Your task to perform on an android device: toggle translation in the chrome app Image 0: 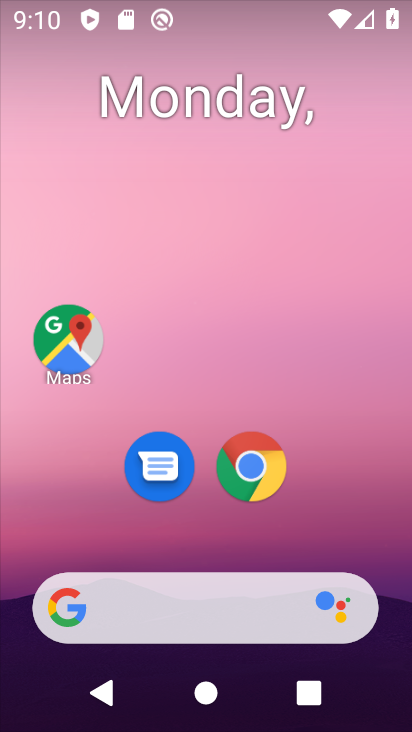
Step 0: drag from (260, 666) to (116, 113)
Your task to perform on an android device: toggle translation in the chrome app Image 1: 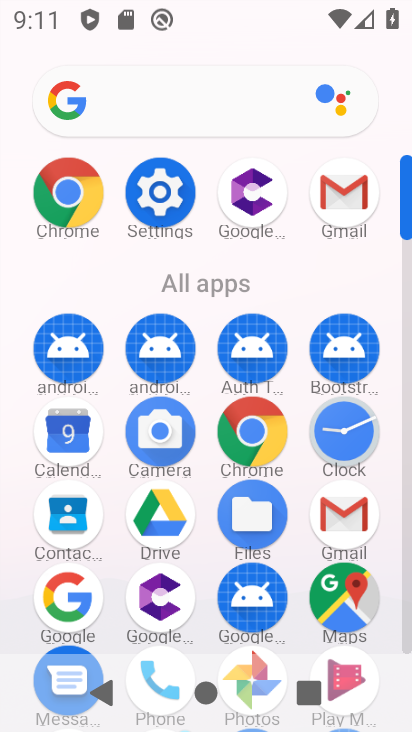
Step 1: click (241, 445)
Your task to perform on an android device: toggle translation in the chrome app Image 2: 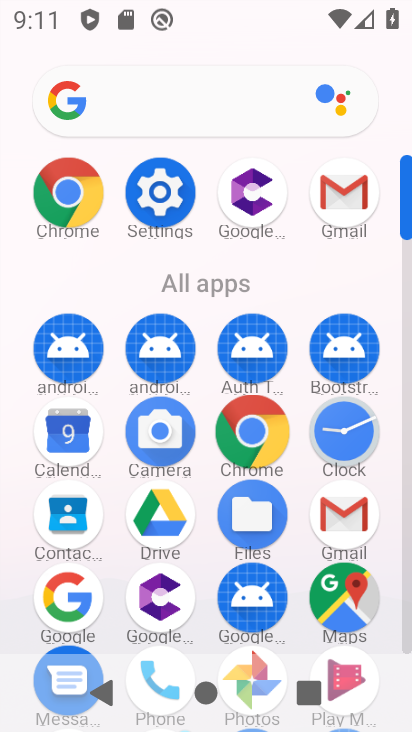
Step 2: click (241, 445)
Your task to perform on an android device: toggle translation in the chrome app Image 3: 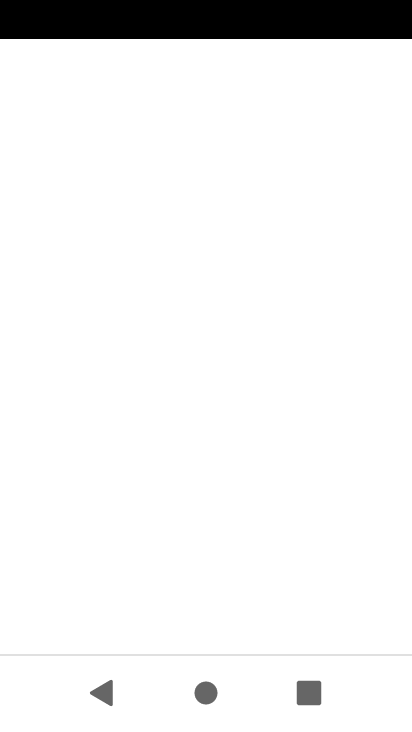
Step 3: click (241, 445)
Your task to perform on an android device: toggle translation in the chrome app Image 4: 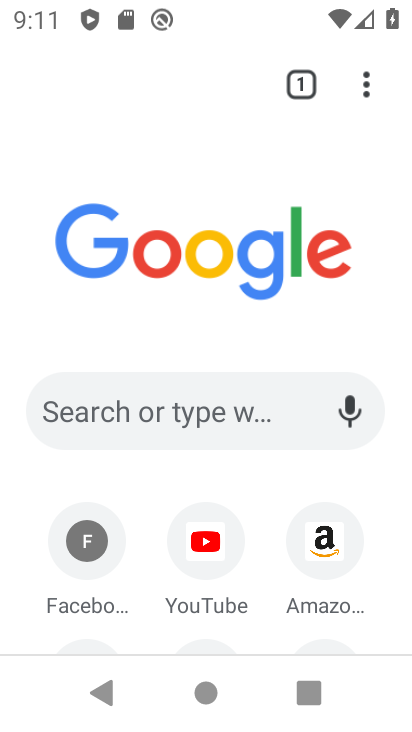
Step 4: drag from (359, 84) to (218, 430)
Your task to perform on an android device: toggle translation in the chrome app Image 5: 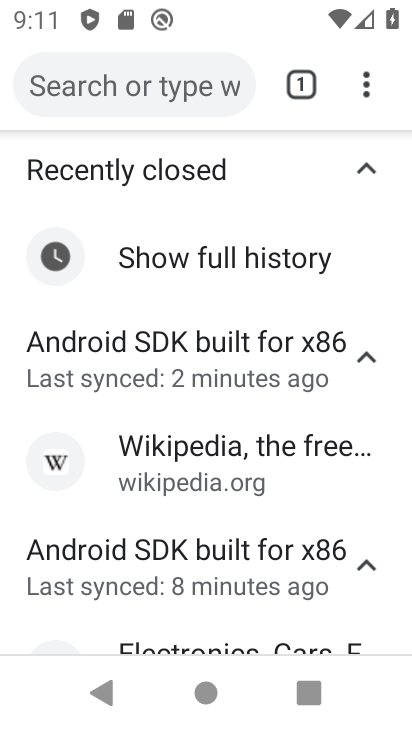
Step 5: press back button
Your task to perform on an android device: toggle translation in the chrome app Image 6: 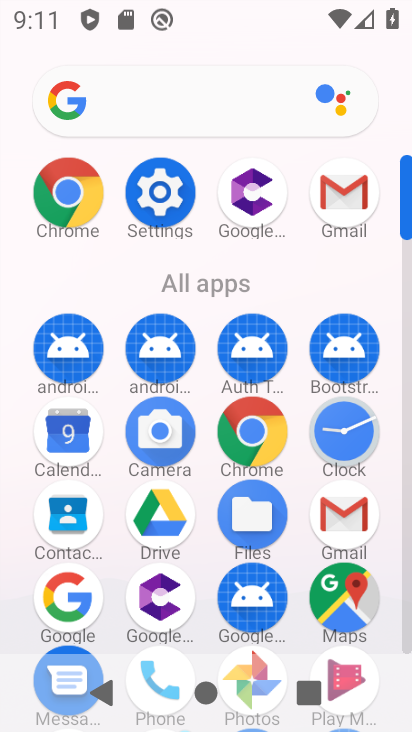
Step 6: click (82, 202)
Your task to perform on an android device: toggle translation in the chrome app Image 7: 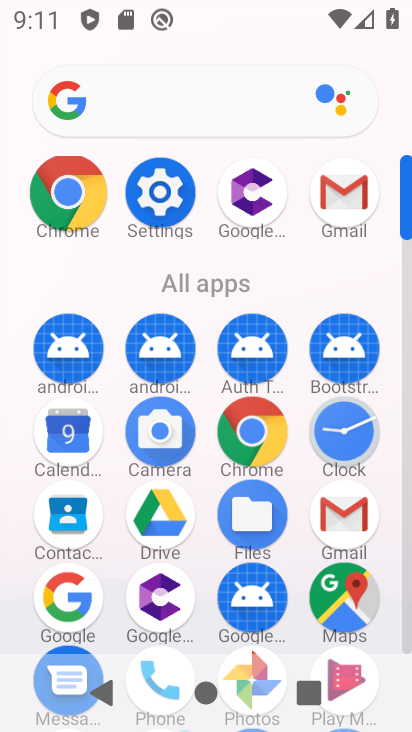
Step 7: click (82, 202)
Your task to perform on an android device: toggle translation in the chrome app Image 8: 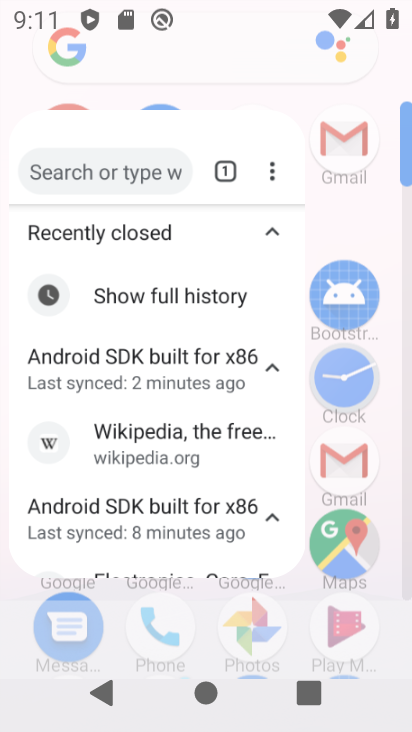
Step 8: click (82, 202)
Your task to perform on an android device: toggle translation in the chrome app Image 9: 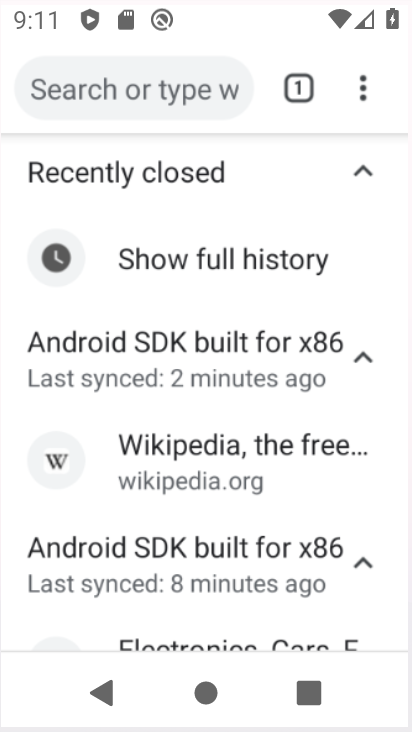
Step 9: click (82, 202)
Your task to perform on an android device: toggle translation in the chrome app Image 10: 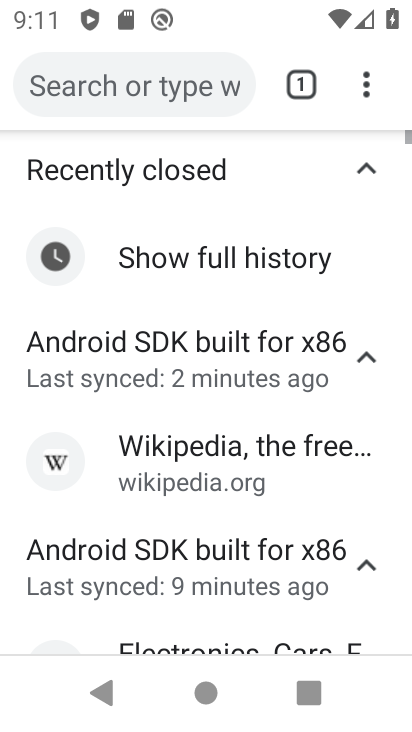
Step 10: drag from (357, 80) to (109, 532)
Your task to perform on an android device: toggle translation in the chrome app Image 11: 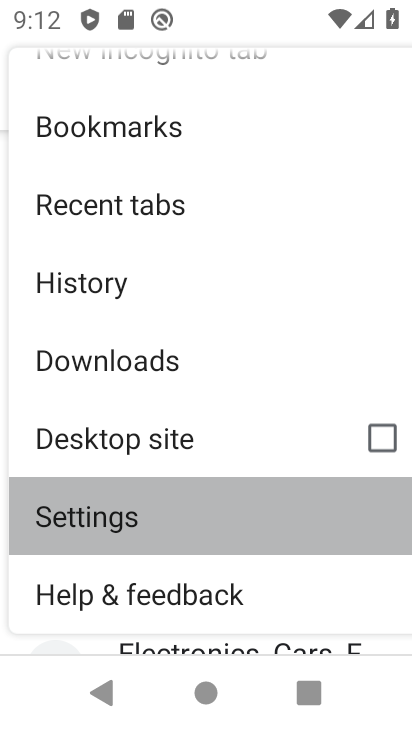
Step 11: click (109, 532)
Your task to perform on an android device: toggle translation in the chrome app Image 12: 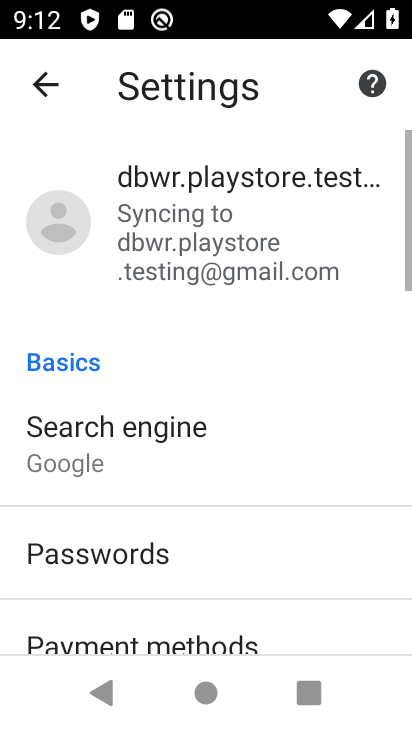
Step 12: drag from (171, 521) to (134, 130)
Your task to perform on an android device: toggle translation in the chrome app Image 13: 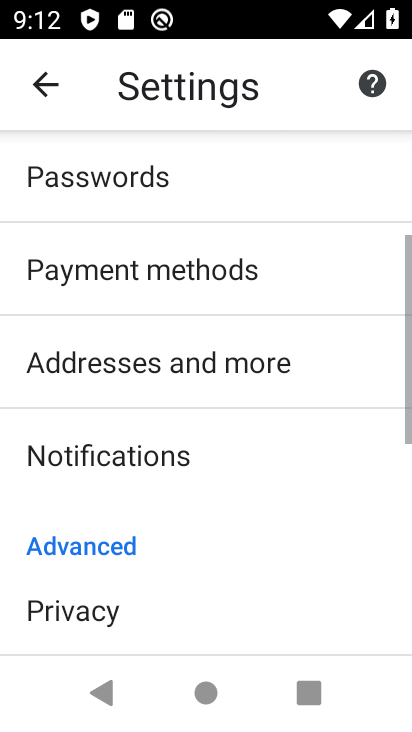
Step 13: drag from (198, 470) to (166, 170)
Your task to perform on an android device: toggle translation in the chrome app Image 14: 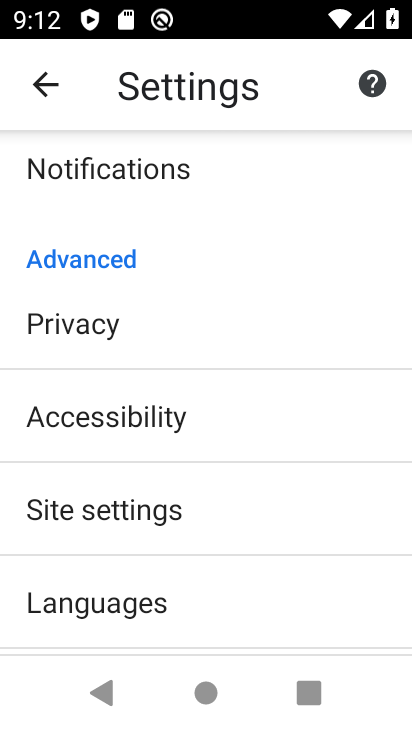
Step 14: click (91, 501)
Your task to perform on an android device: toggle translation in the chrome app Image 15: 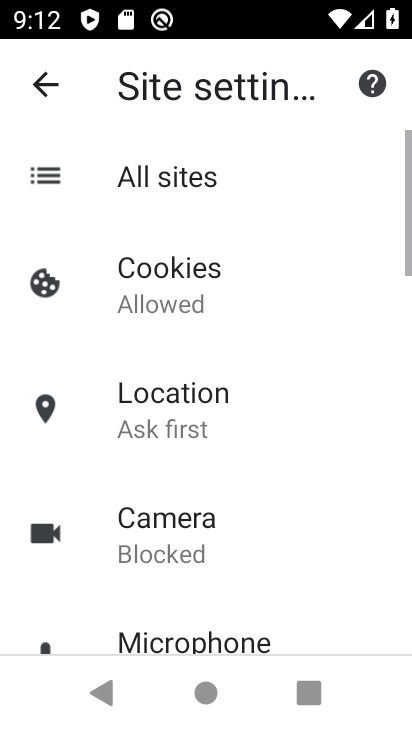
Step 15: drag from (212, 501) to (214, 200)
Your task to perform on an android device: toggle translation in the chrome app Image 16: 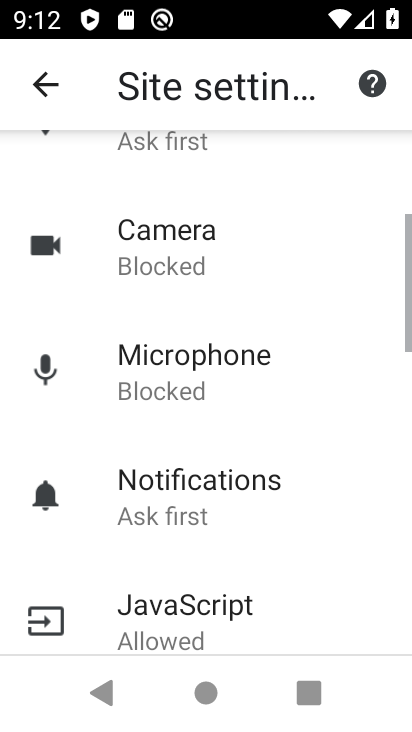
Step 16: drag from (277, 428) to (296, 124)
Your task to perform on an android device: toggle translation in the chrome app Image 17: 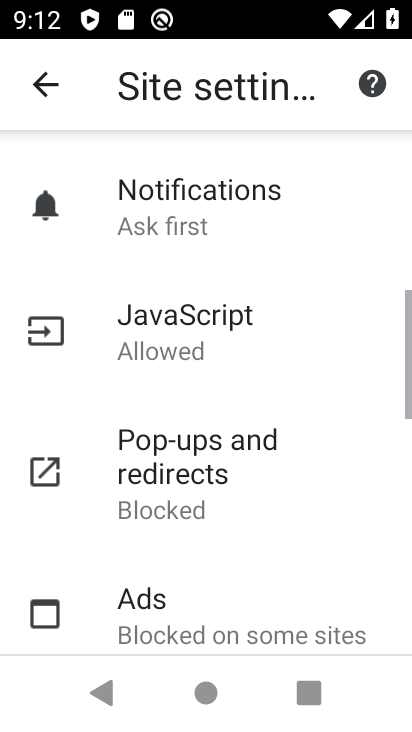
Step 17: drag from (285, 440) to (268, 241)
Your task to perform on an android device: toggle translation in the chrome app Image 18: 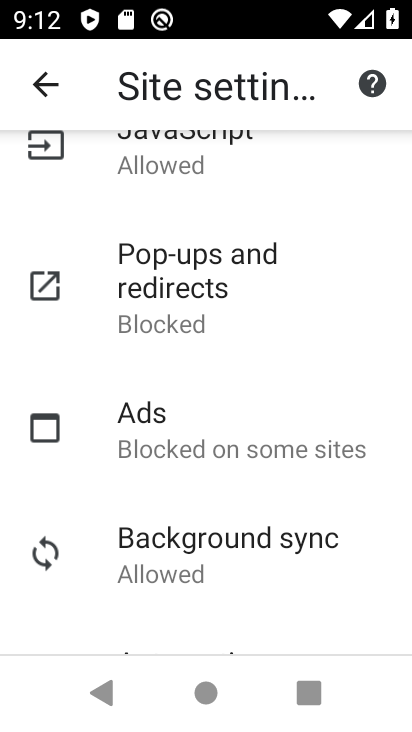
Step 18: drag from (225, 310) to (315, 627)
Your task to perform on an android device: toggle translation in the chrome app Image 19: 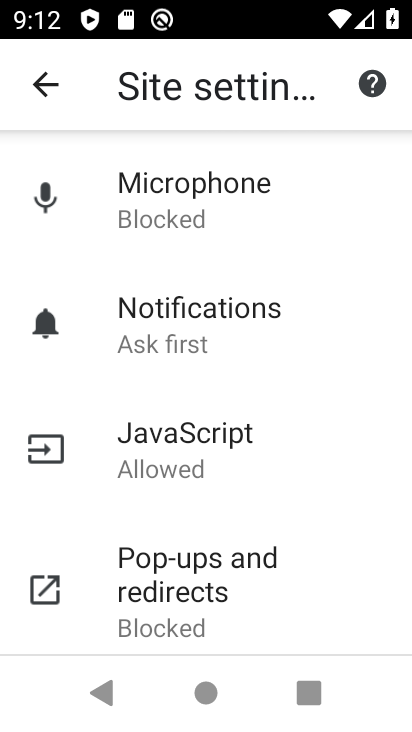
Step 19: click (49, 78)
Your task to perform on an android device: toggle translation in the chrome app Image 20: 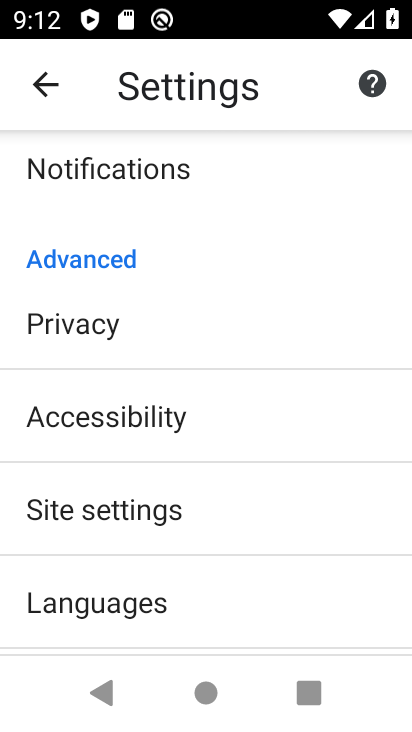
Step 20: click (94, 602)
Your task to perform on an android device: toggle translation in the chrome app Image 21: 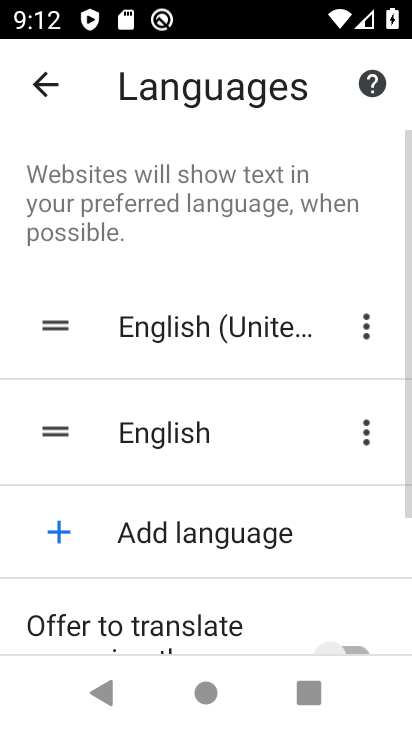
Step 21: drag from (217, 515) to (197, 184)
Your task to perform on an android device: toggle translation in the chrome app Image 22: 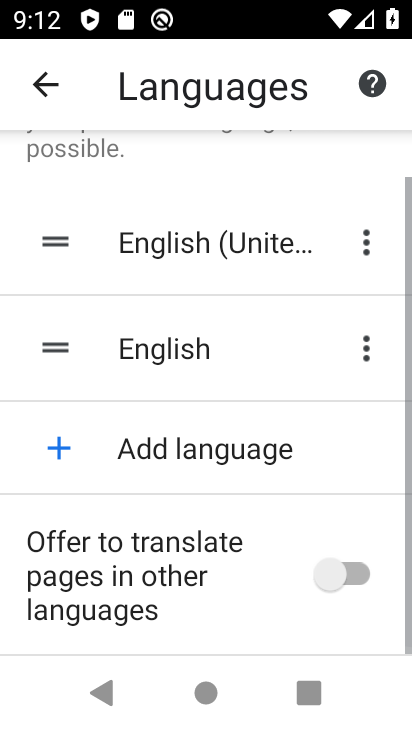
Step 22: drag from (265, 451) to (265, 121)
Your task to perform on an android device: toggle translation in the chrome app Image 23: 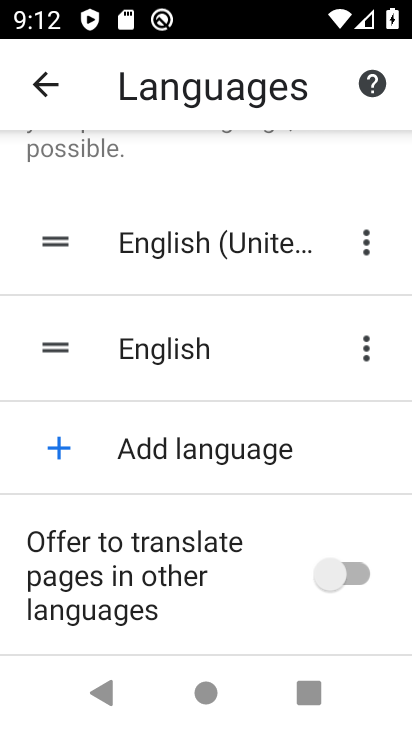
Step 23: click (335, 576)
Your task to perform on an android device: toggle translation in the chrome app Image 24: 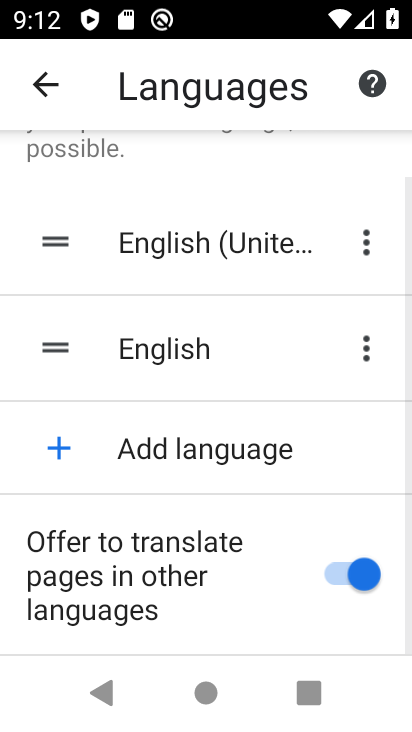
Step 24: task complete